Your task to perform on an android device: Show me recent news Image 0: 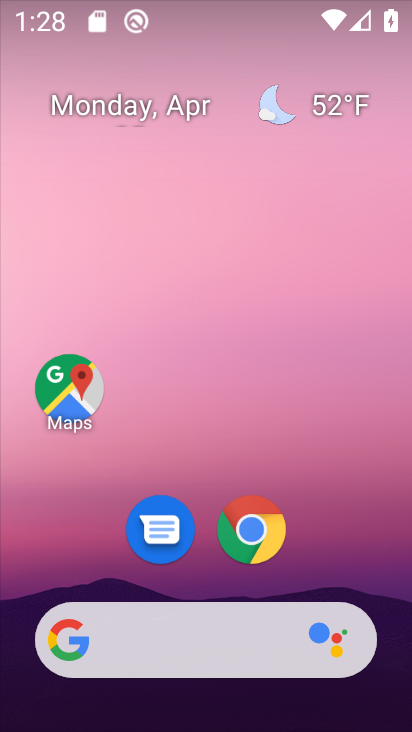
Step 0: drag from (382, 367) to (378, 153)
Your task to perform on an android device: Show me recent news Image 1: 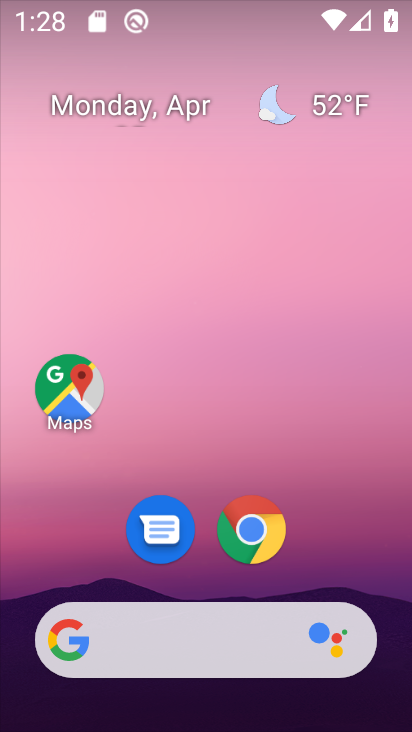
Step 1: click (385, 251)
Your task to perform on an android device: Show me recent news Image 2: 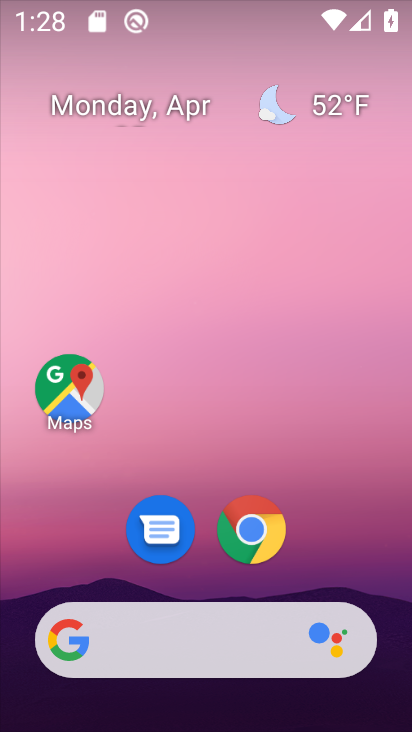
Step 2: click (385, 330)
Your task to perform on an android device: Show me recent news Image 3: 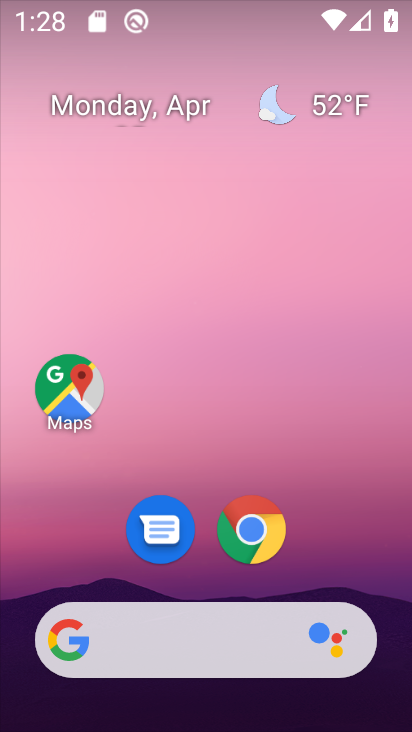
Step 3: drag from (393, 633) to (348, 275)
Your task to perform on an android device: Show me recent news Image 4: 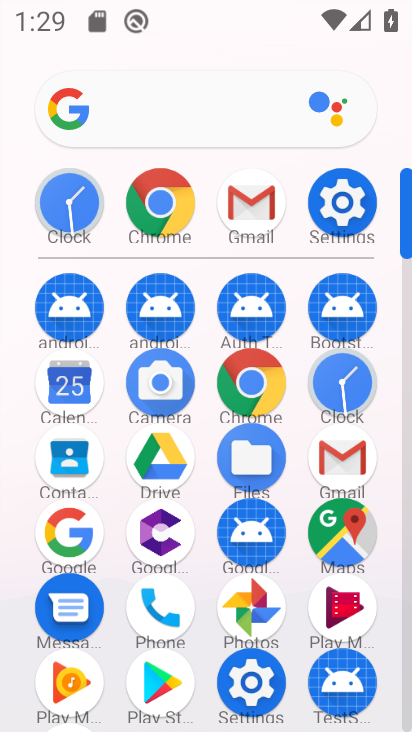
Step 4: click (80, 530)
Your task to perform on an android device: Show me recent news Image 5: 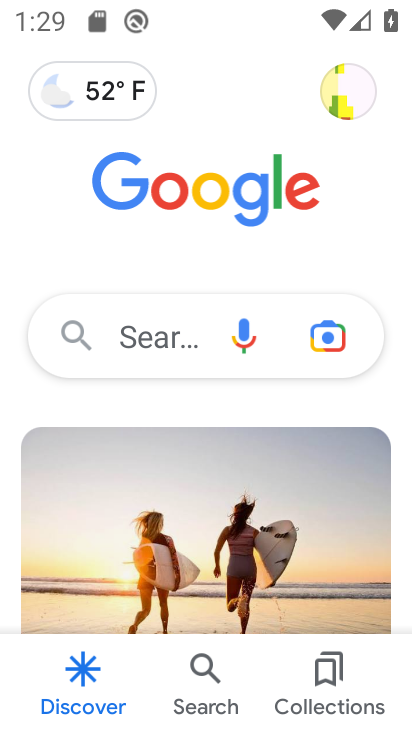
Step 5: task complete